Your task to perform on an android device: Add asus rog to the cart on ebay.com Image 0: 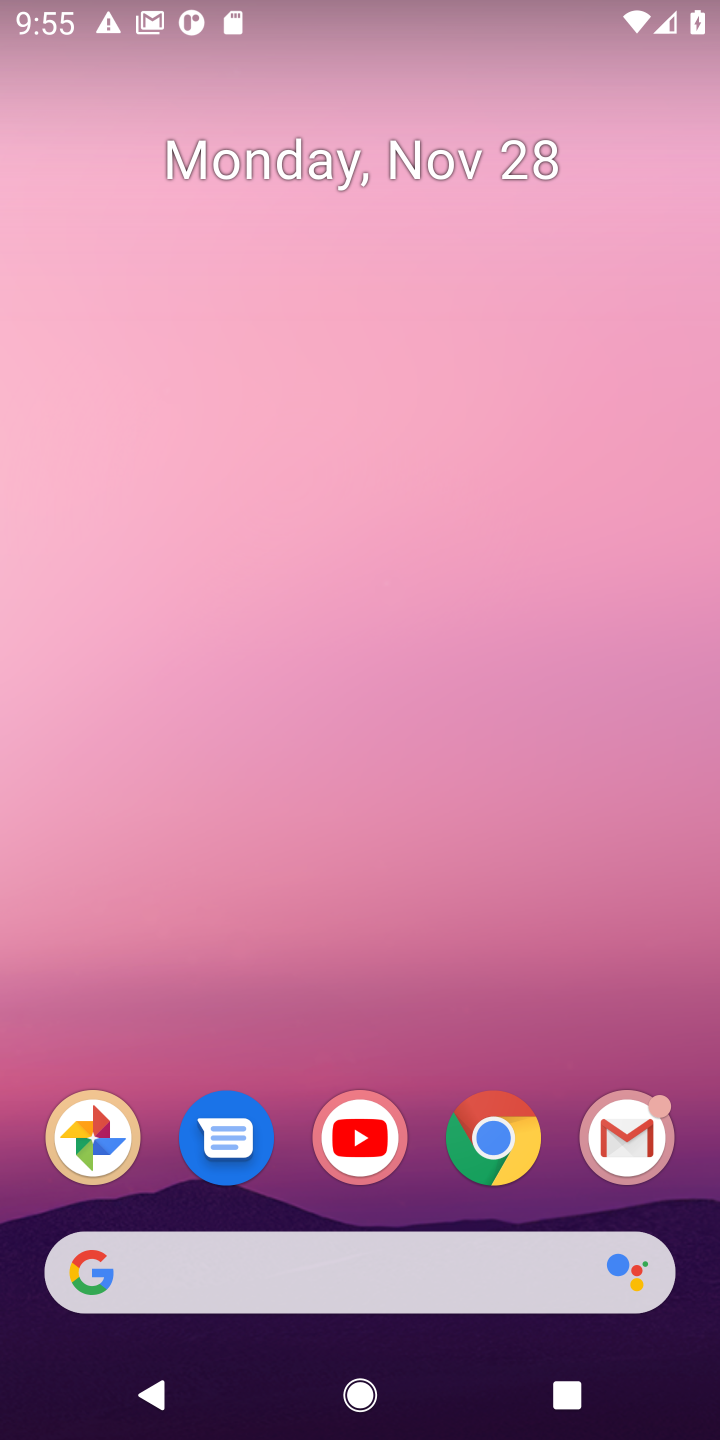
Step 0: click (490, 1144)
Your task to perform on an android device: Add asus rog to the cart on ebay.com Image 1: 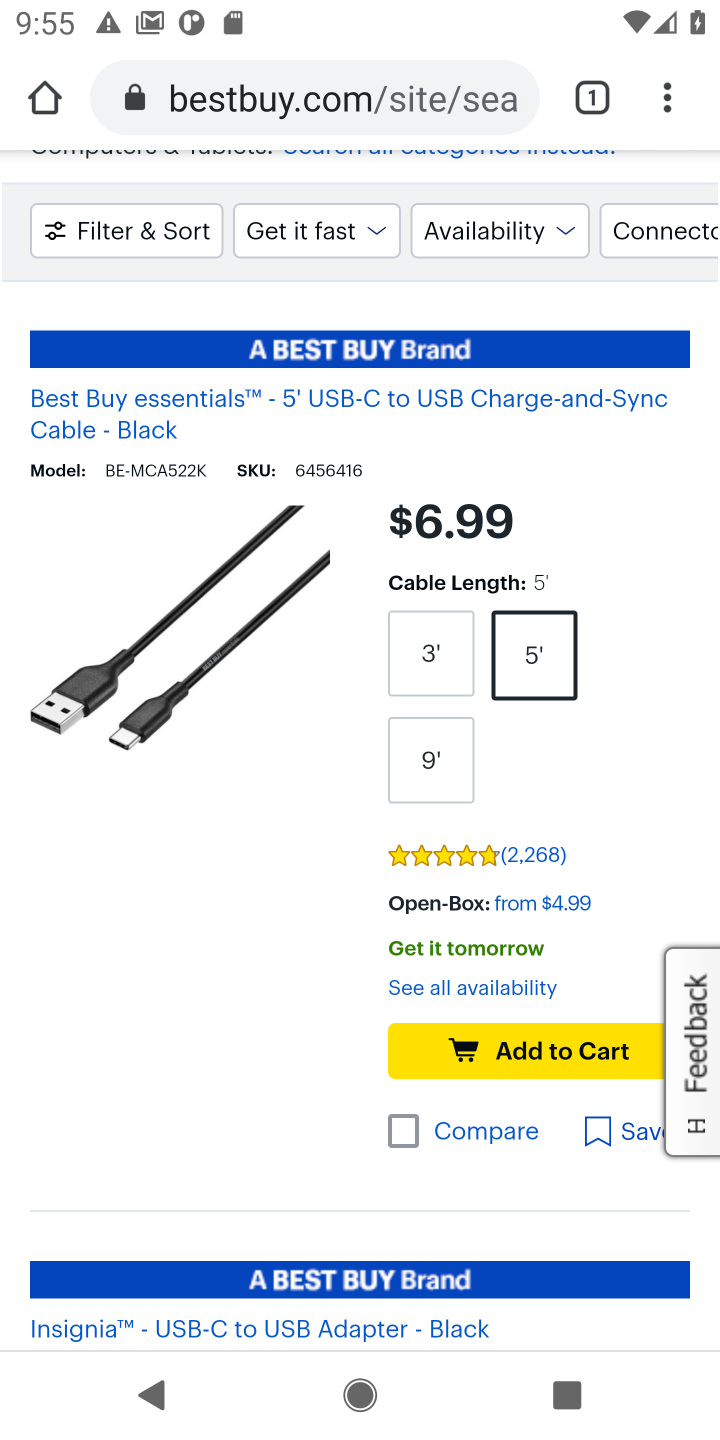
Step 1: click (287, 117)
Your task to perform on an android device: Add asus rog to the cart on ebay.com Image 2: 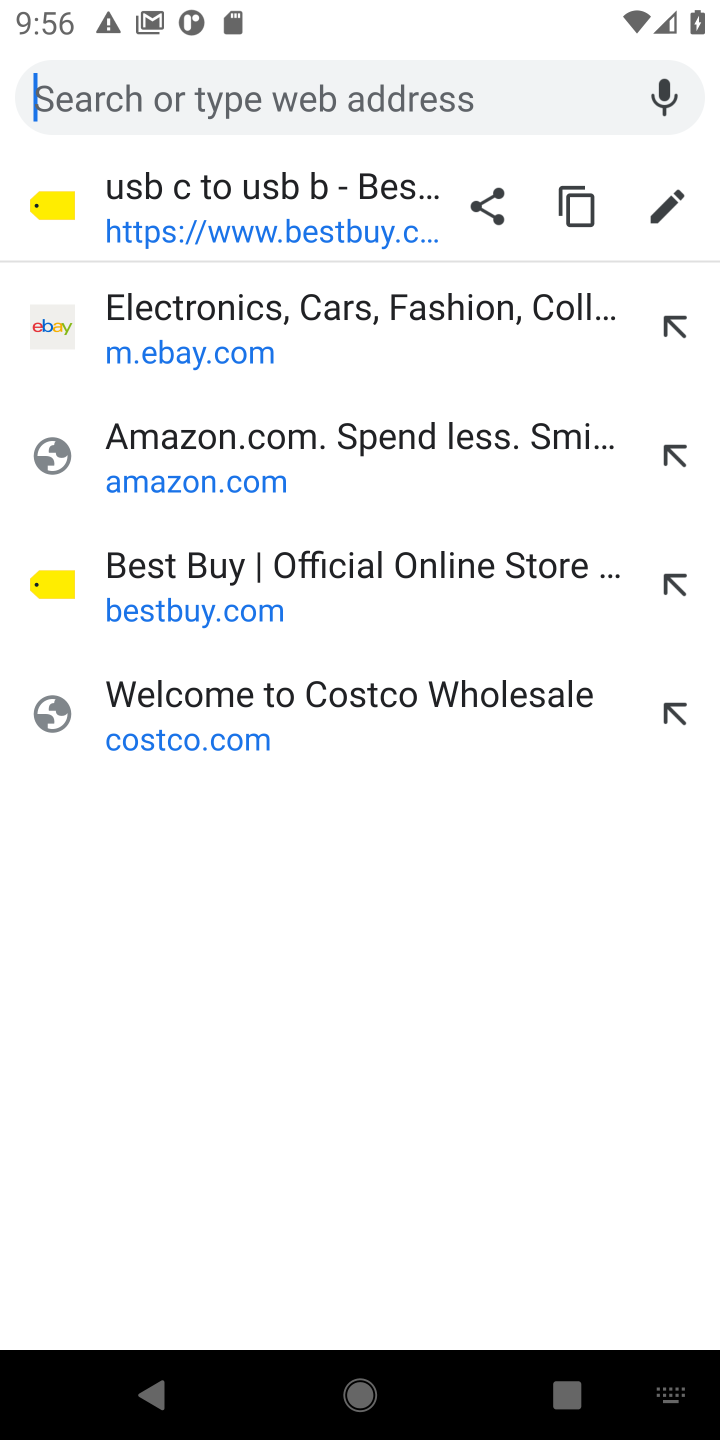
Step 2: click (168, 344)
Your task to perform on an android device: Add asus rog to the cart on ebay.com Image 3: 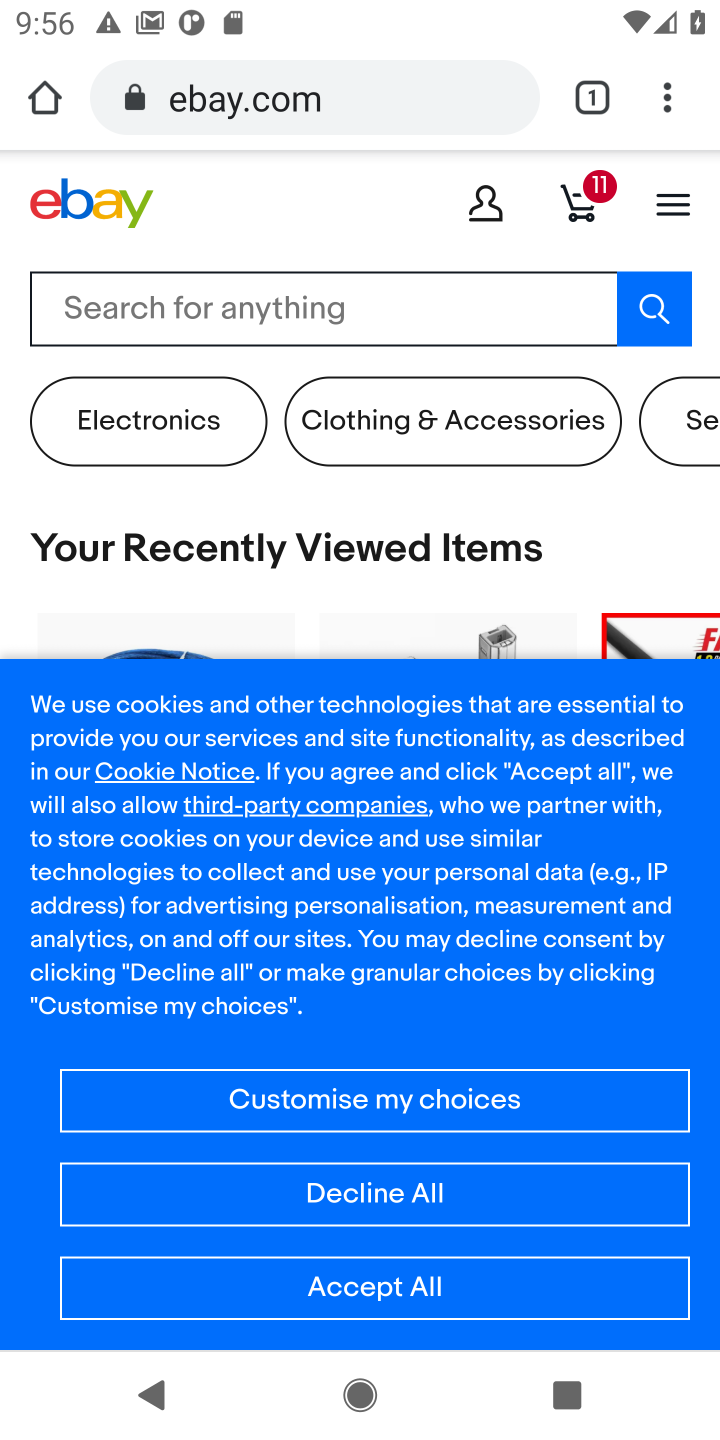
Step 3: click (153, 310)
Your task to perform on an android device: Add asus rog to the cart on ebay.com Image 4: 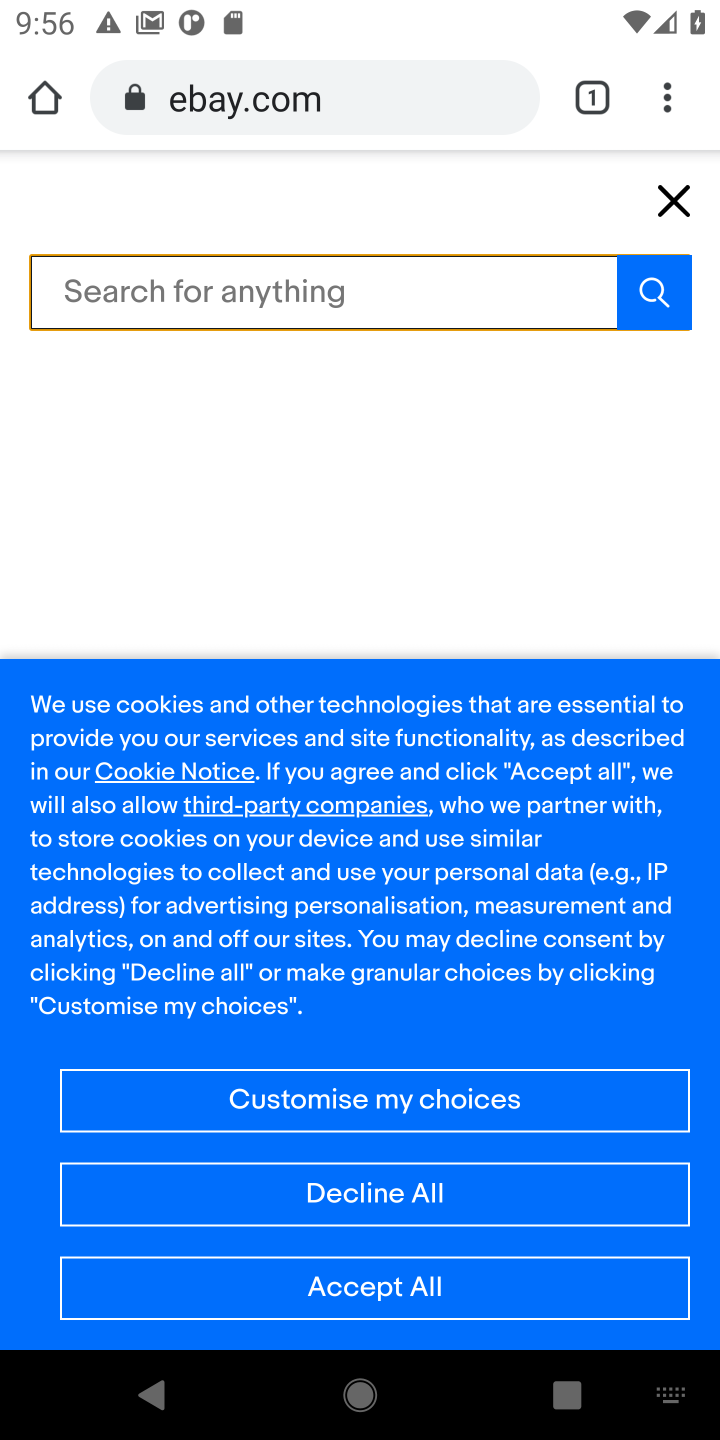
Step 4: type "asus rog"
Your task to perform on an android device: Add asus rog to the cart on ebay.com Image 5: 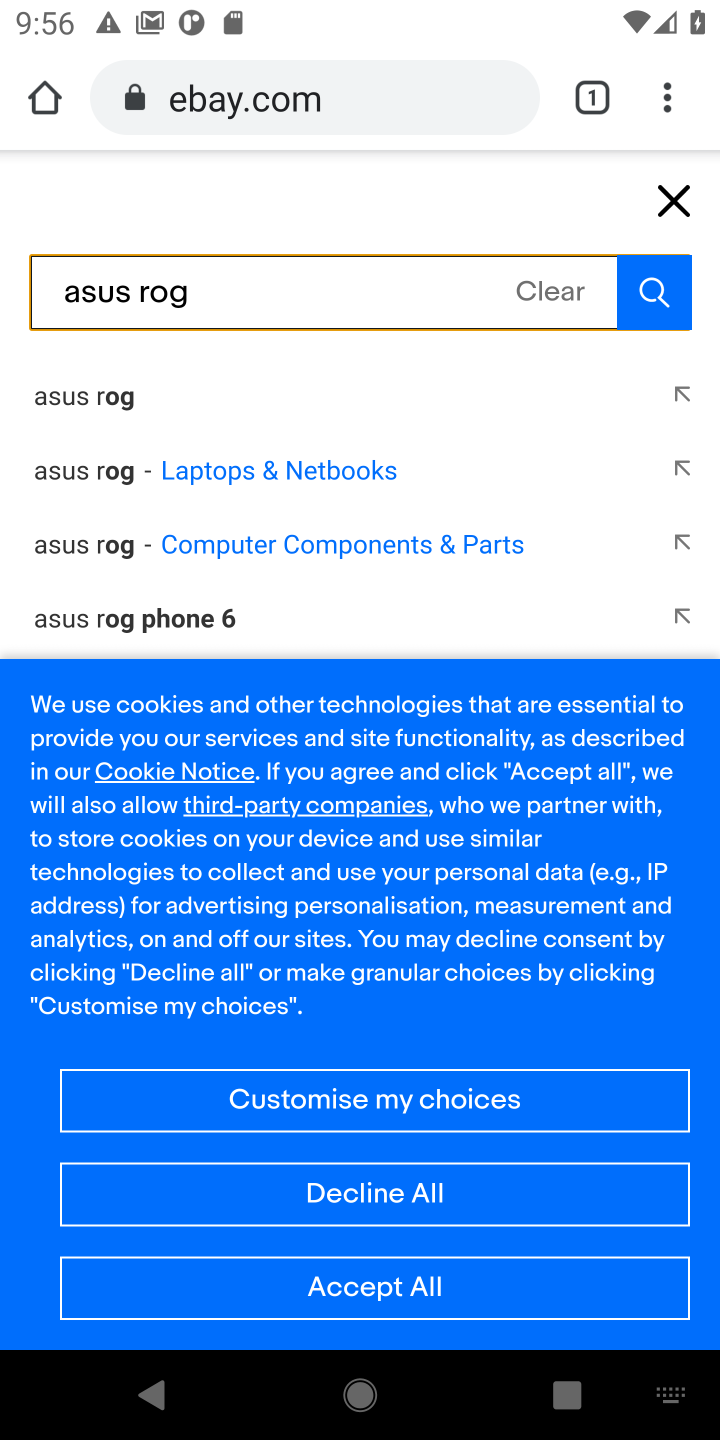
Step 5: click (88, 402)
Your task to perform on an android device: Add asus rog to the cart on ebay.com Image 6: 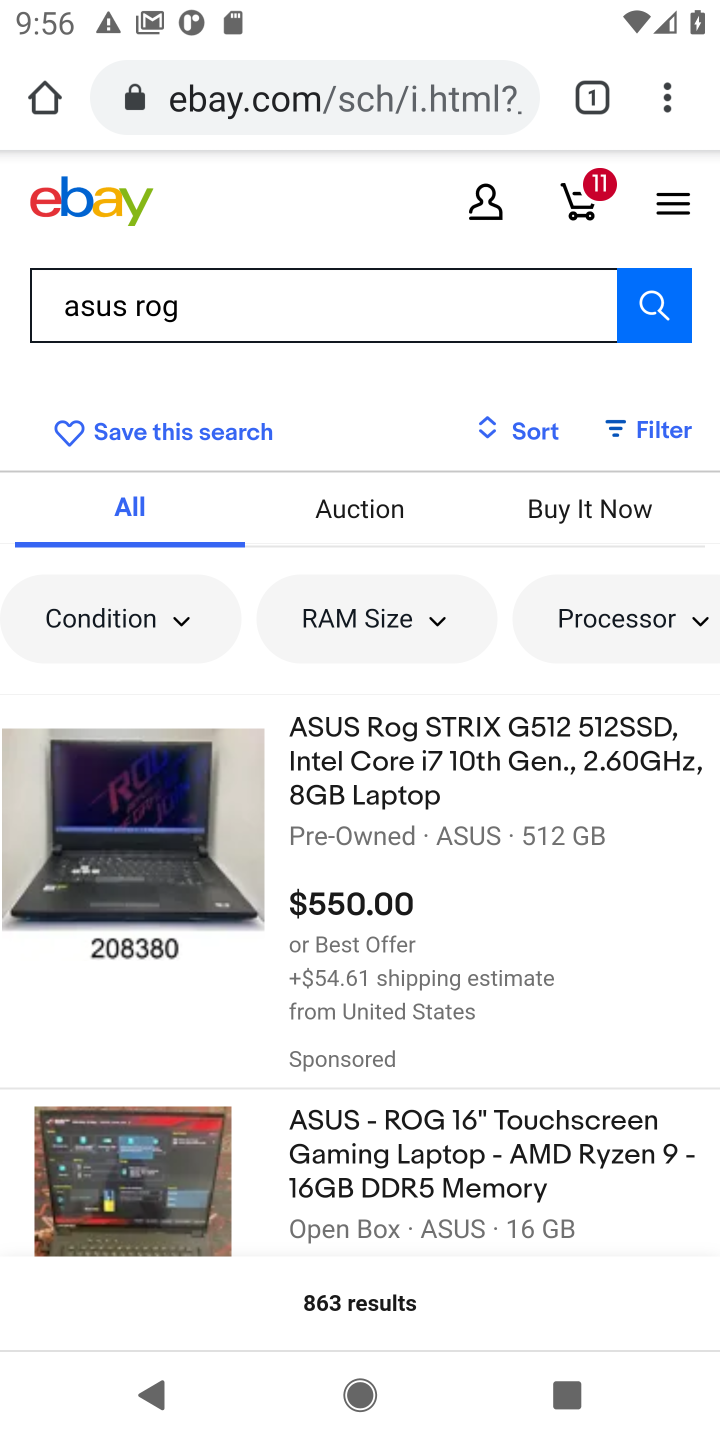
Step 6: click (337, 781)
Your task to perform on an android device: Add asus rog to the cart on ebay.com Image 7: 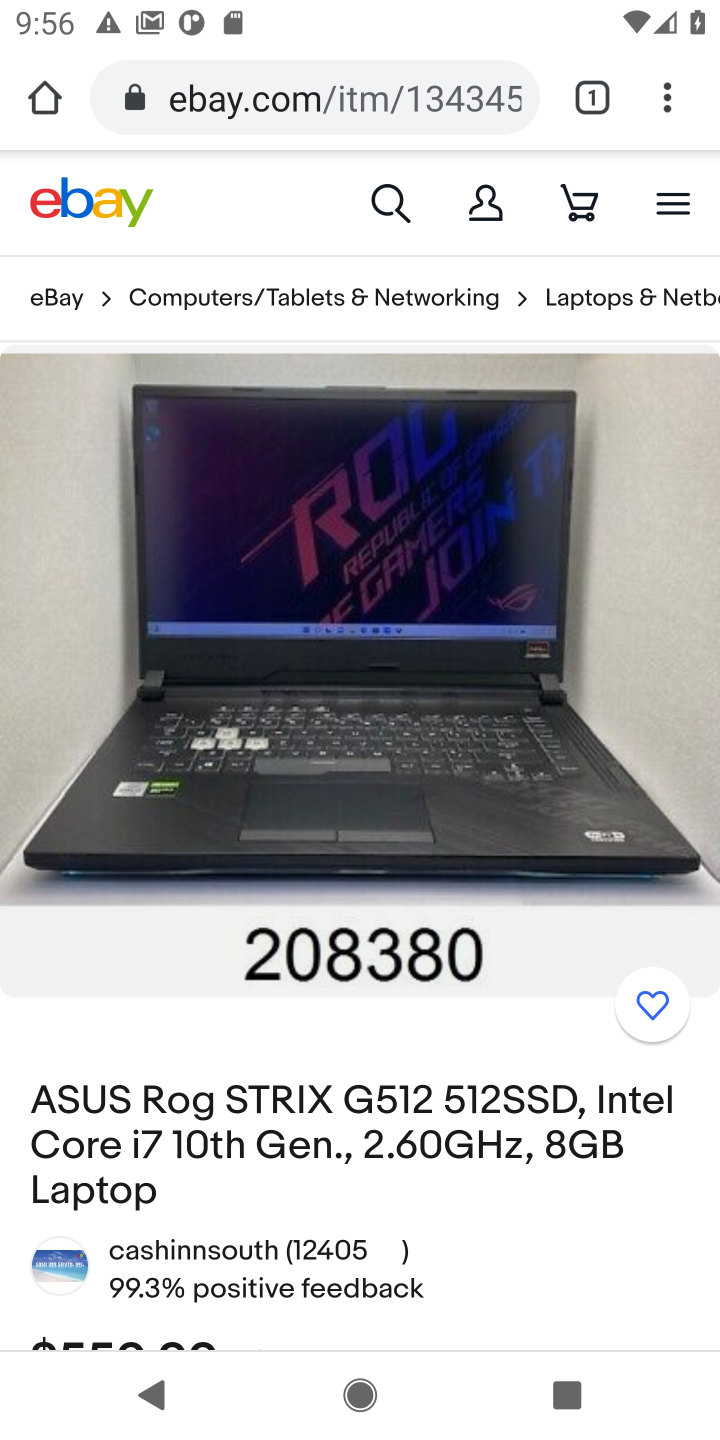
Step 7: drag from (457, 1156) to (481, 580)
Your task to perform on an android device: Add asus rog to the cart on ebay.com Image 8: 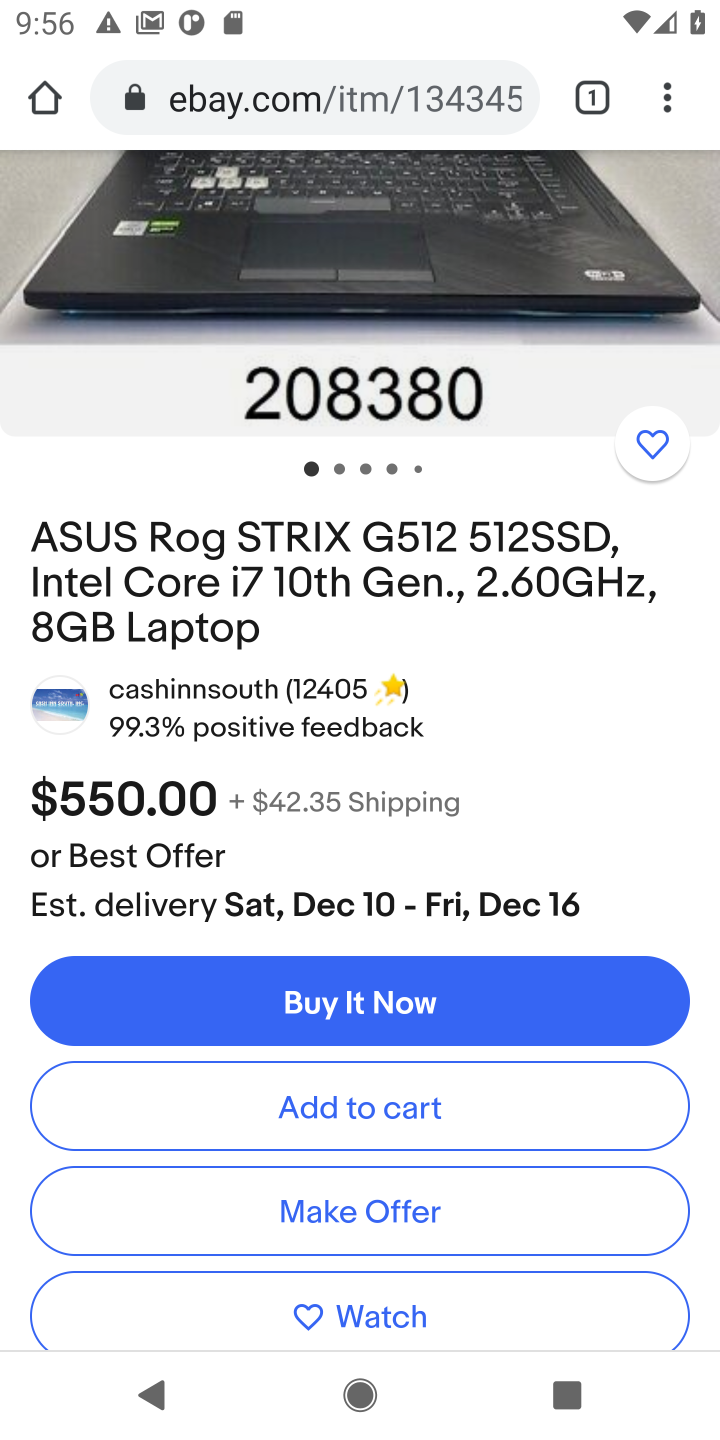
Step 8: click (366, 1106)
Your task to perform on an android device: Add asus rog to the cart on ebay.com Image 9: 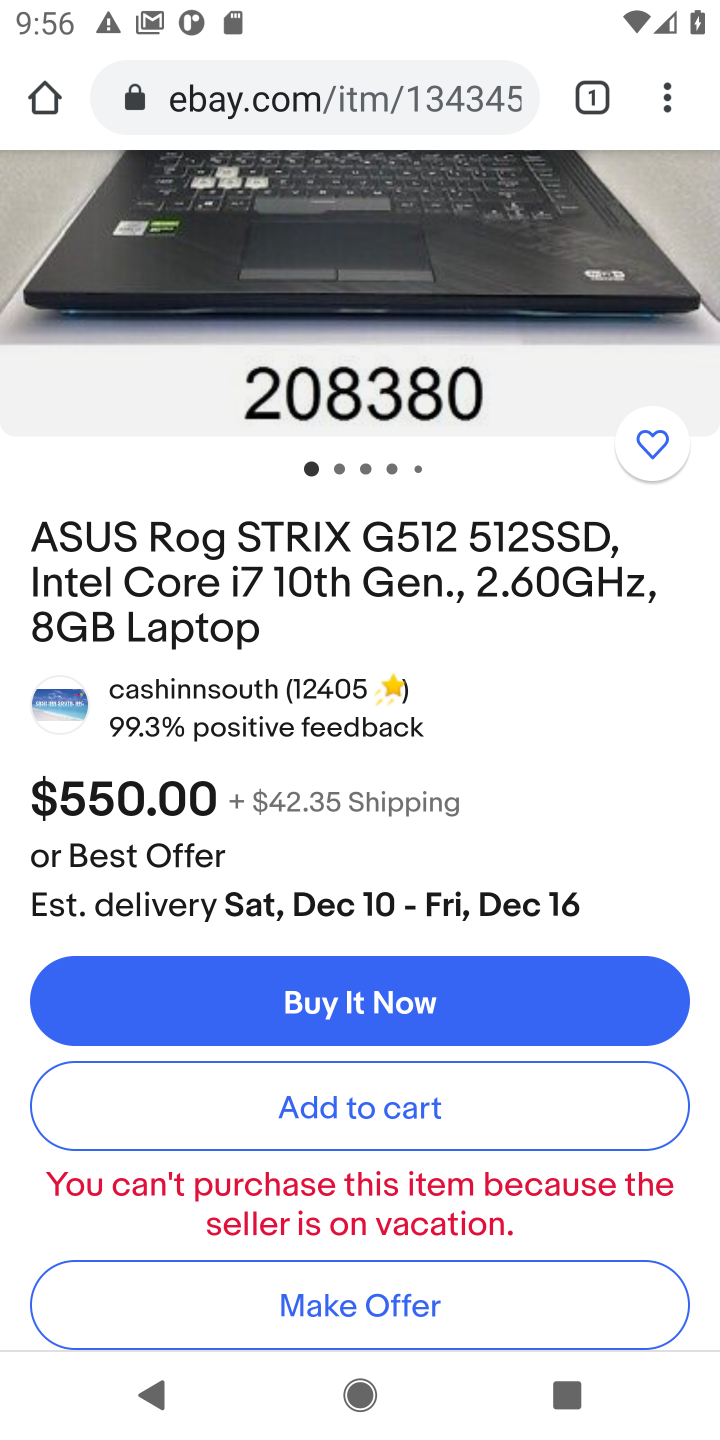
Step 9: press back button
Your task to perform on an android device: Add asus rog to the cart on ebay.com Image 10: 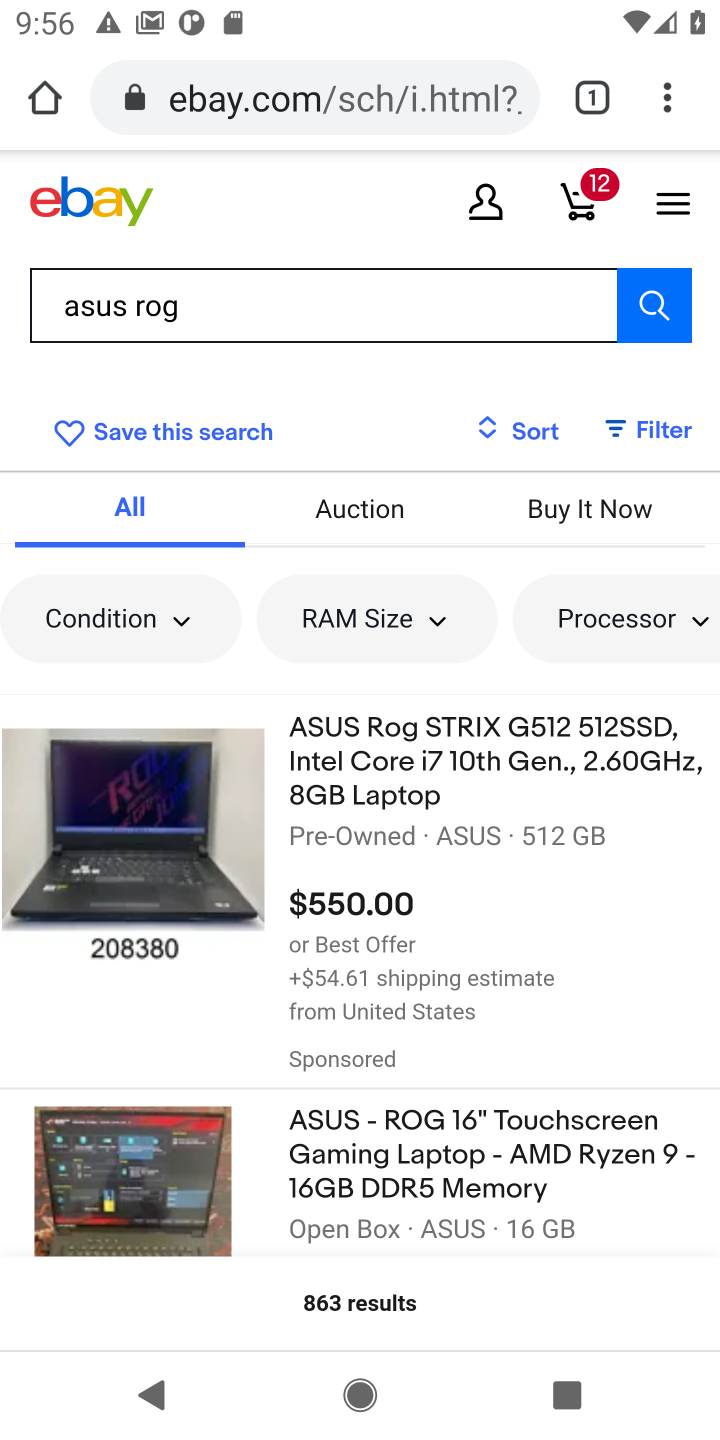
Step 10: drag from (468, 1009) to (466, 467)
Your task to perform on an android device: Add asus rog to the cart on ebay.com Image 11: 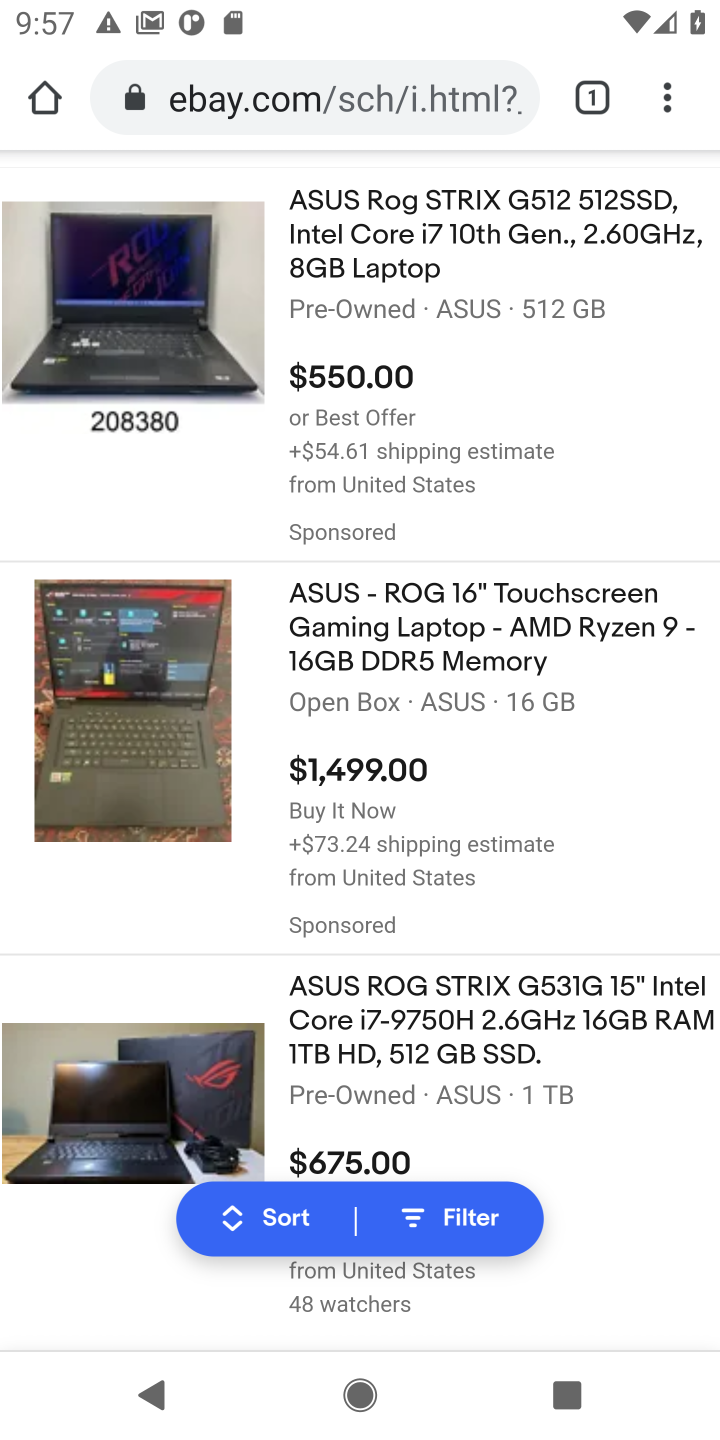
Step 11: click (326, 629)
Your task to perform on an android device: Add asus rog to the cart on ebay.com Image 12: 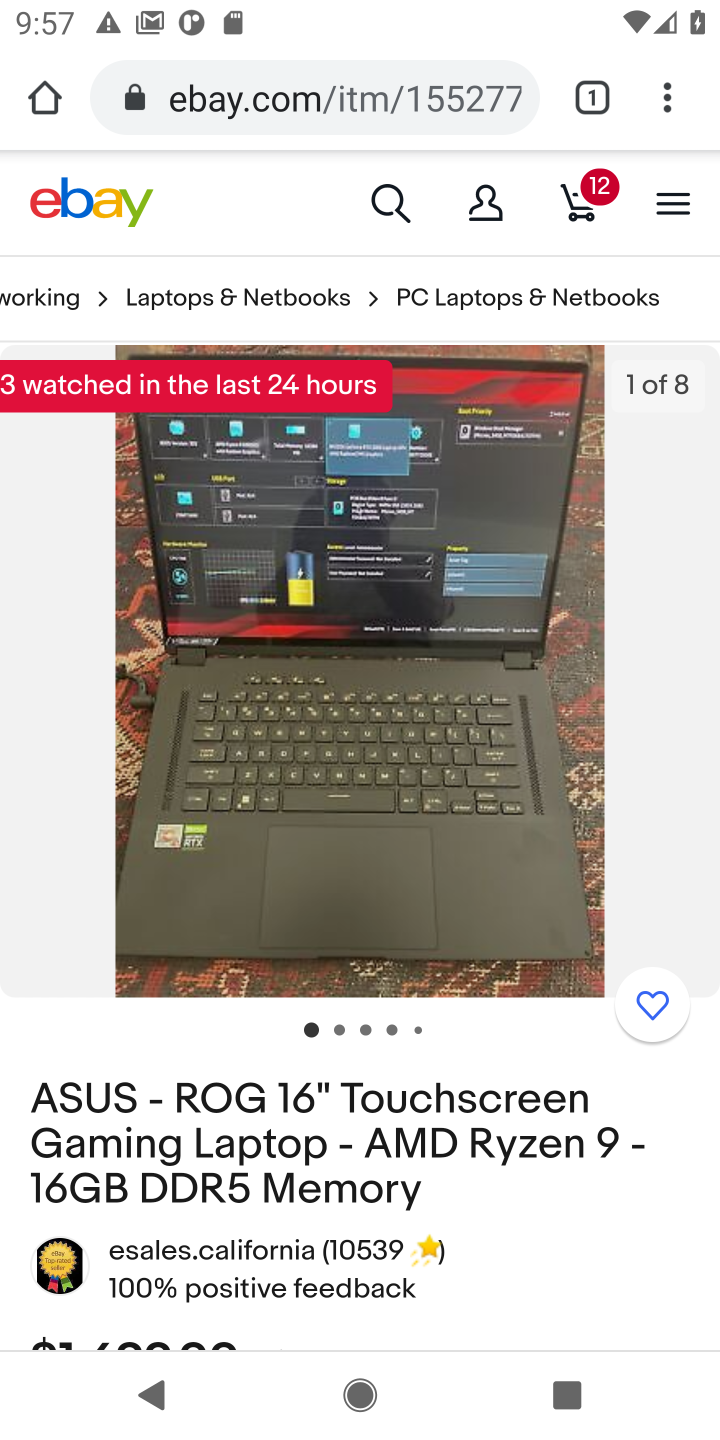
Step 12: drag from (530, 856) to (522, 362)
Your task to perform on an android device: Add asus rog to the cart on ebay.com Image 13: 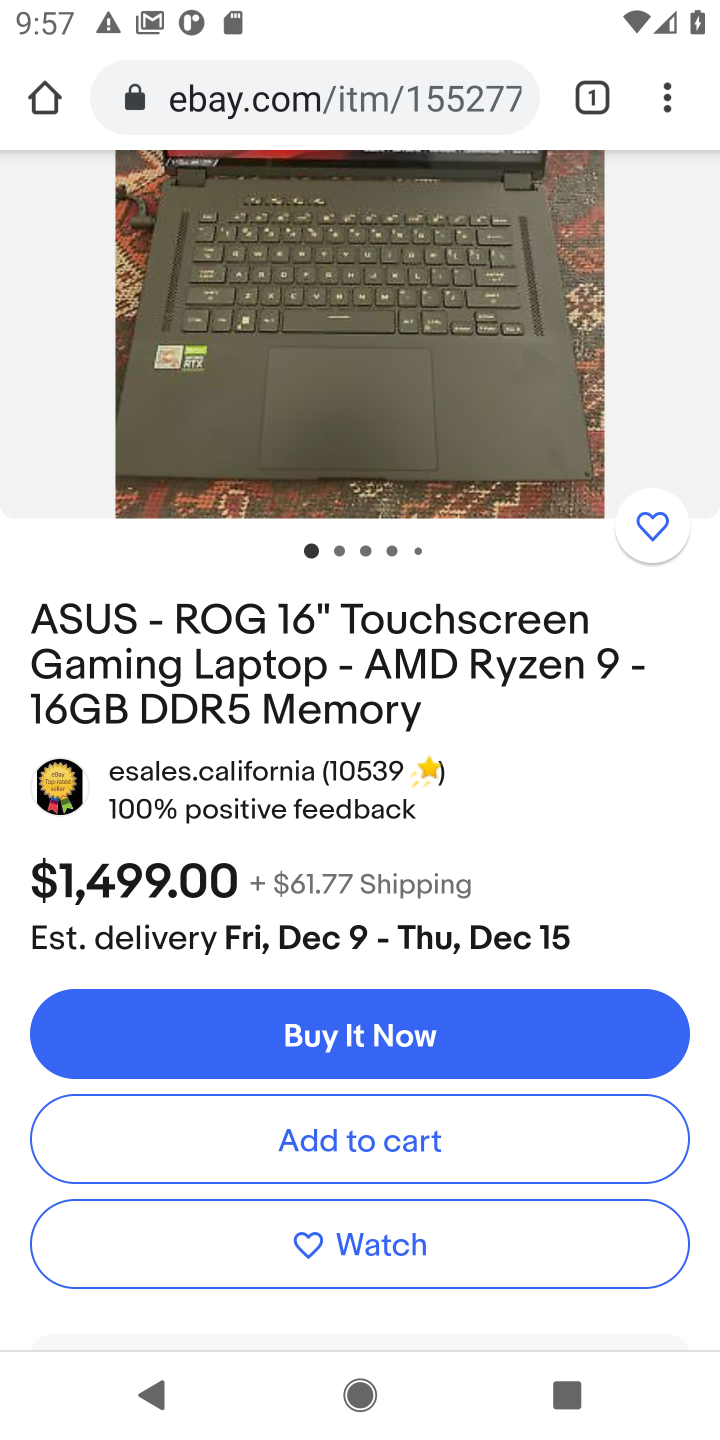
Step 13: click (362, 1119)
Your task to perform on an android device: Add asus rog to the cart on ebay.com Image 14: 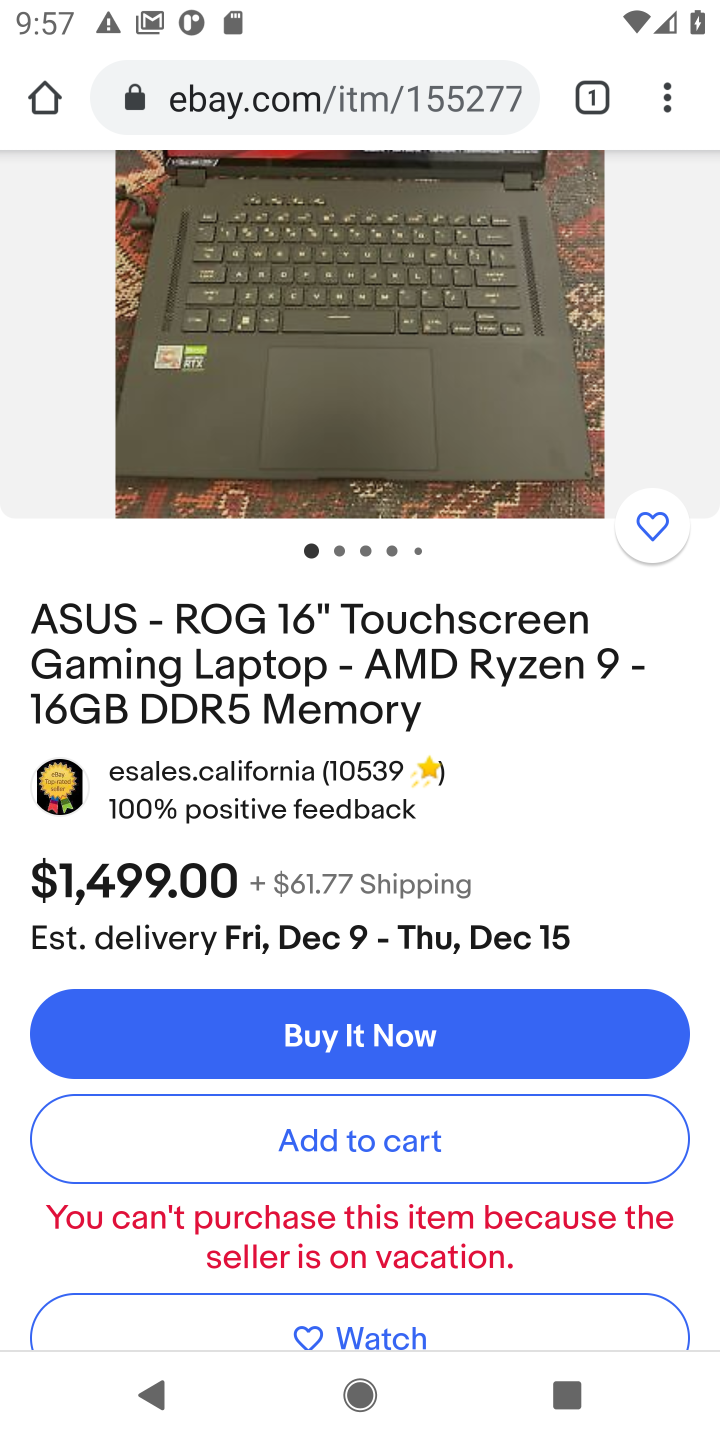
Step 14: press back button
Your task to perform on an android device: Add asus rog to the cart on ebay.com Image 15: 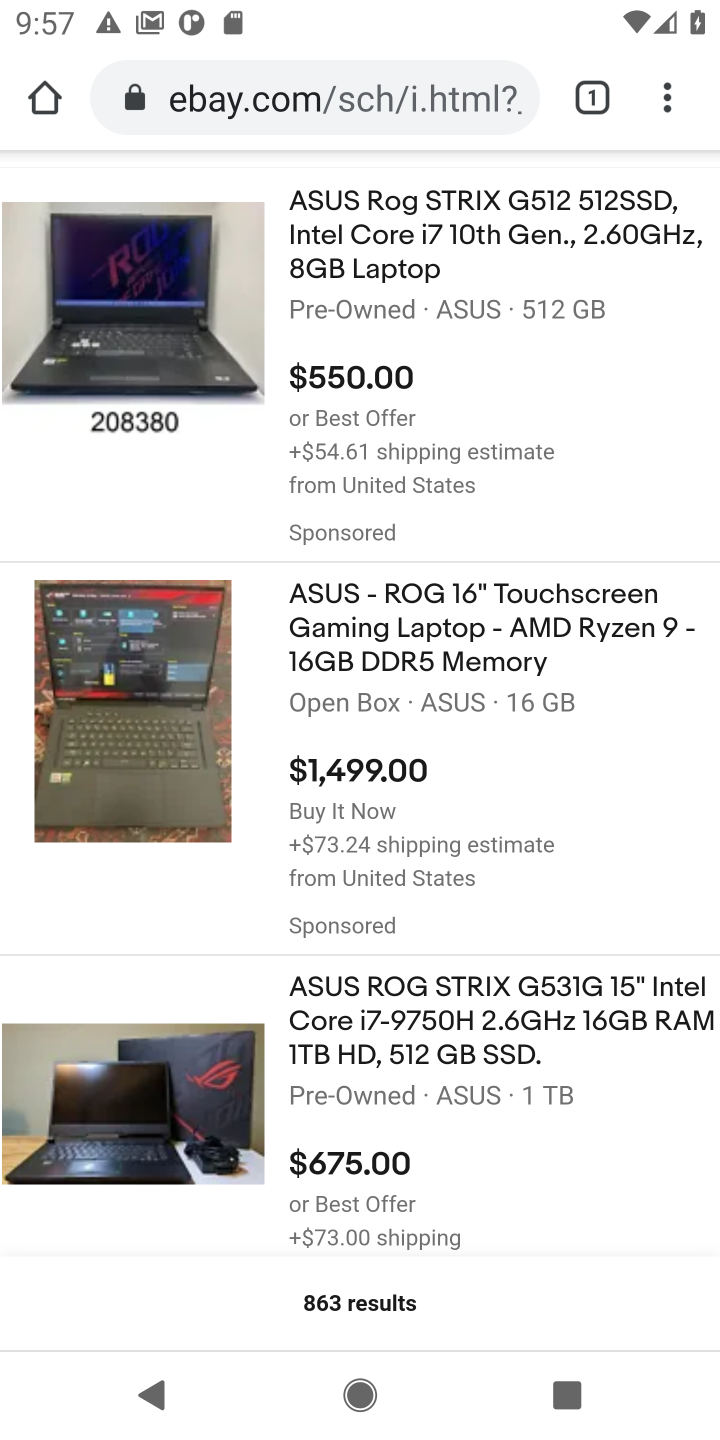
Step 15: click (385, 1018)
Your task to perform on an android device: Add asus rog to the cart on ebay.com Image 16: 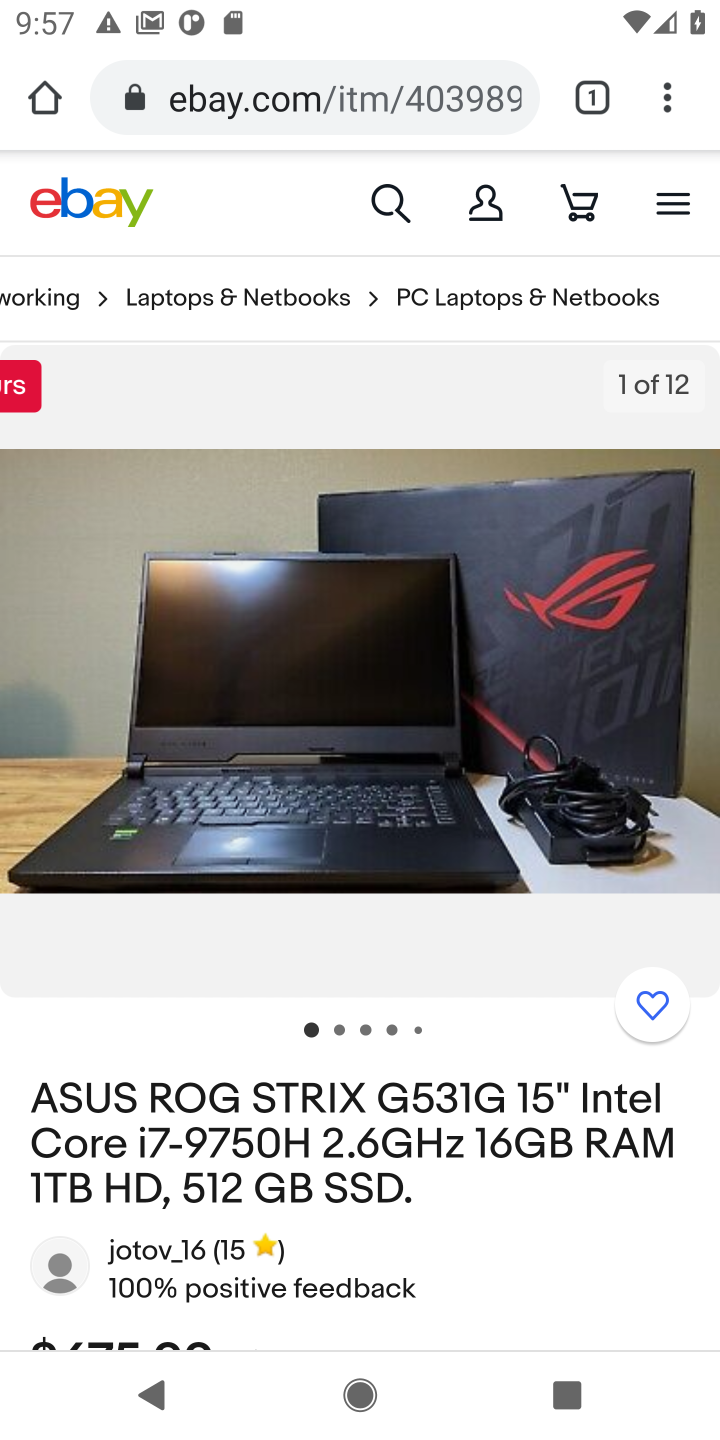
Step 16: drag from (387, 1013) to (387, 402)
Your task to perform on an android device: Add asus rog to the cart on ebay.com Image 17: 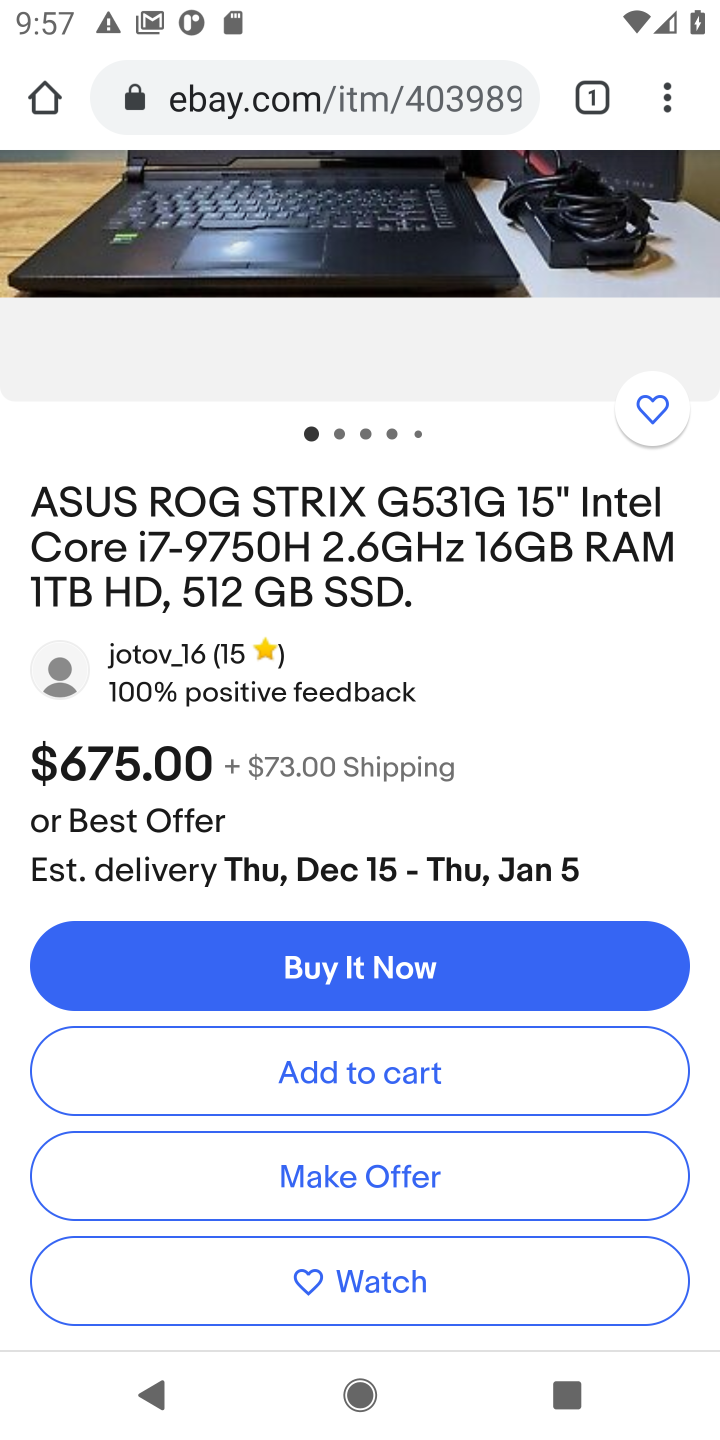
Step 17: click (321, 1058)
Your task to perform on an android device: Add asus rog to the cart on ebay.com Image 18: 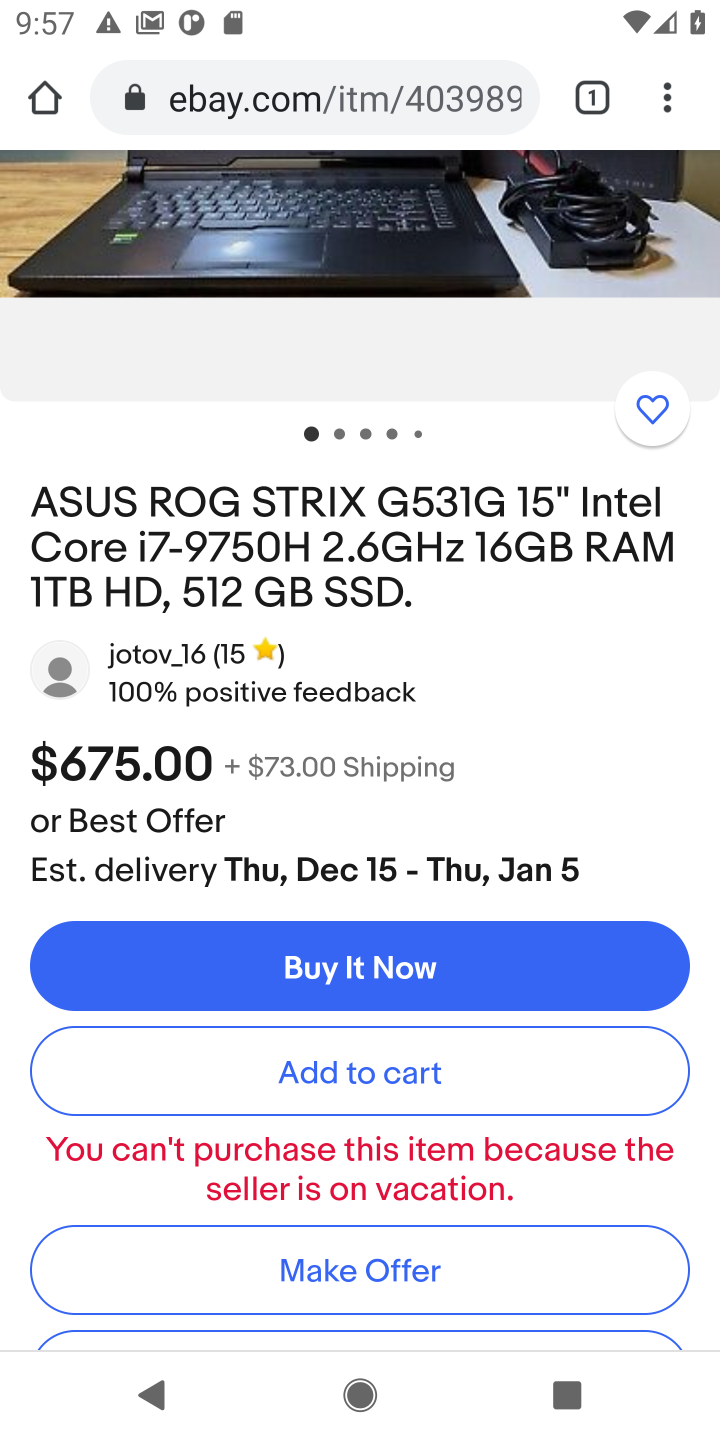
Step 18: task complete